Your task to perform on an android device: move a message to another label in the gmail app Image 0: 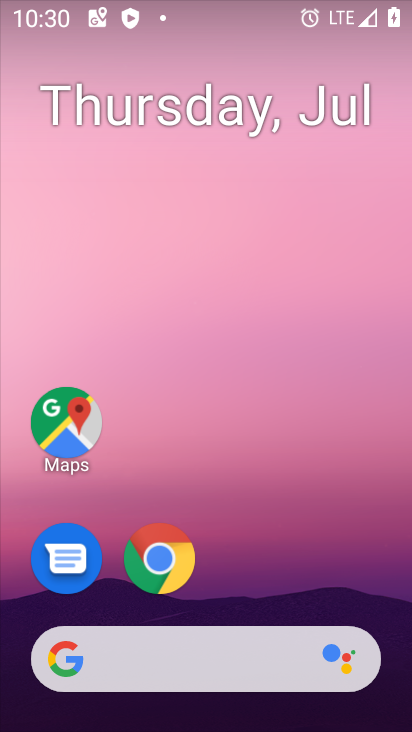
Step 0: drag from (355, 556) to (346, 83)
Your task to perform on an android device: move a message to another label in the gmail app Image 1: 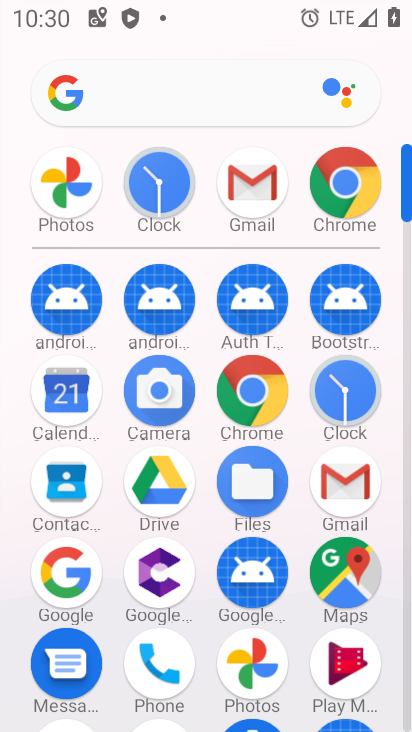
Step 1: click (342, 484)
Your task to perform on an android device: move a message to another label in the gmail app Image 2: 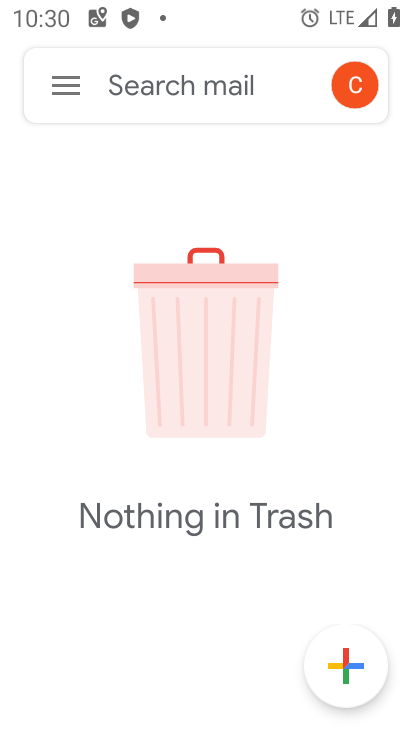
Step 2: click (68, 91)
Your task to perform on an android device: move a message to another label in the gmail app Image 3: 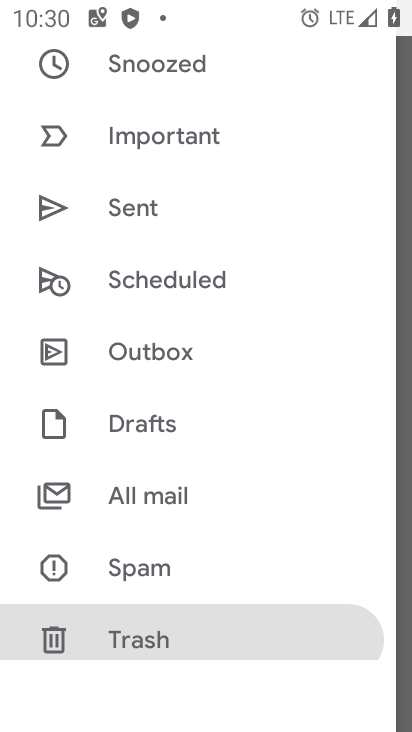
Step 3: drag from (302, 244) to (319, 392)
Your task to perform on an android device: move a message to another label in the gmail app Image 4: 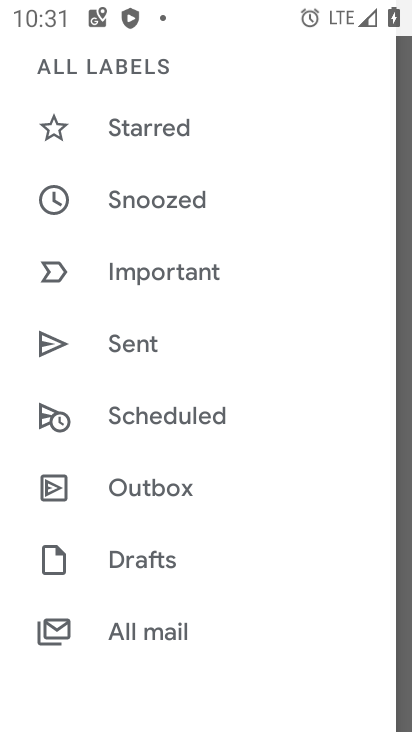
Step 4: click (242, 627)
Your task to perform on an android device: move a message to another label in the gmail app Image 5: 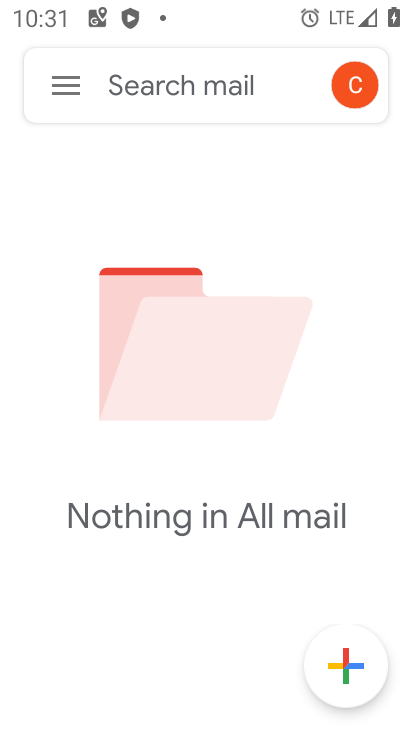
Step 5: task complete